Your task to perform on an android device: make emails show in primary in the gmail app Image 0: 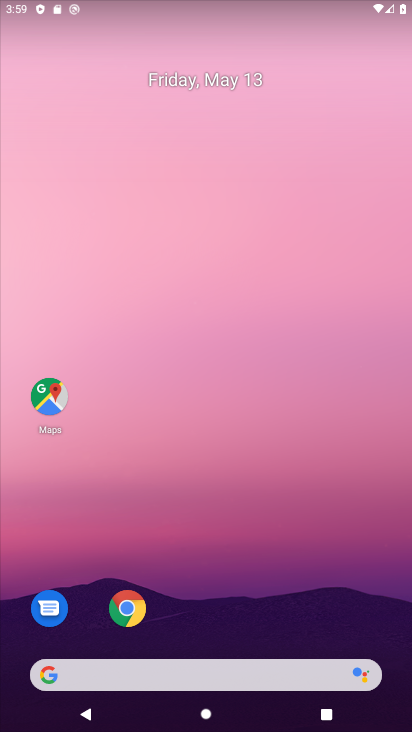
Step 0: drag from (330, 662) to (327, 0)
Your task to perform on an android device: make emails show in primary in the gmail app Image 1: 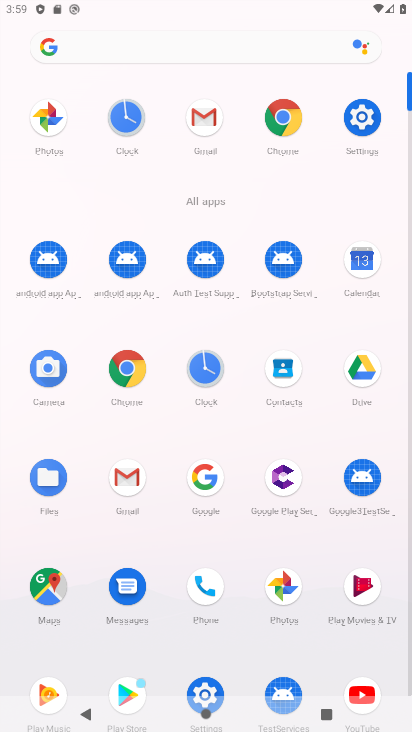
Step 1: click (124, 470)
Your task to perform on an android device: make emails show in primary in the gmail app Image 2: 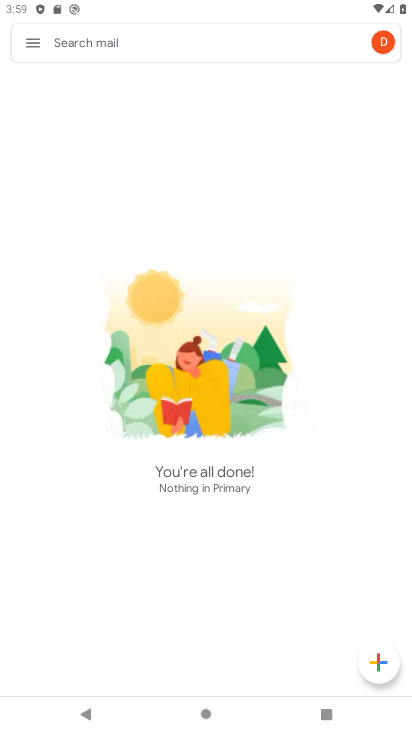
Step 2: click (34, 46)
Your task to perform on an android device: make emails show in primary in the gmail app Image 3: 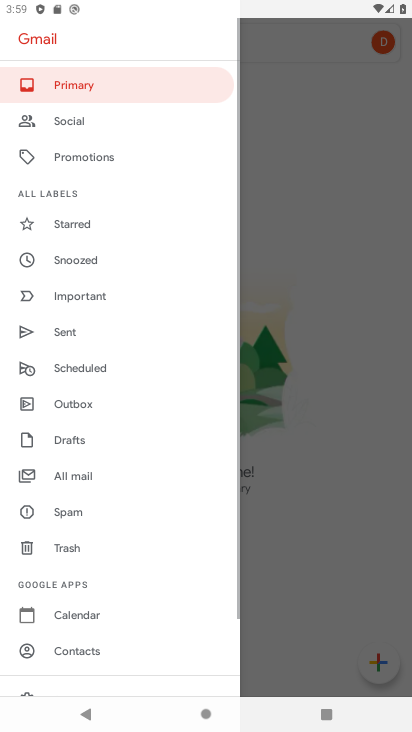
Step 3: click (94, 88)
Your task to perform on an android device: make emails show in primary in the gmail app Image 4: 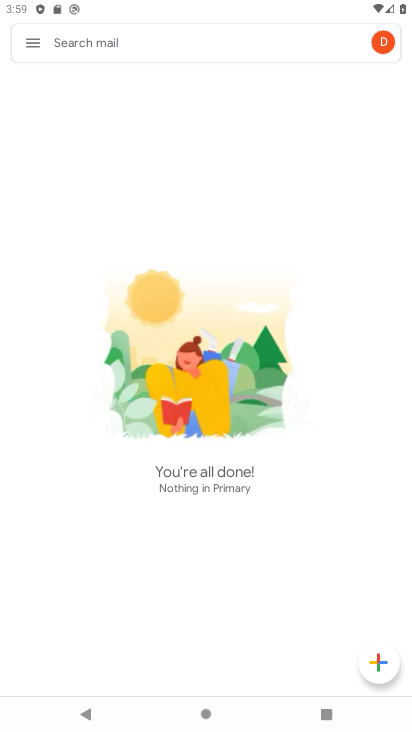
Step 4: task complete